Your task to perform on an android device: View the shopping cart on costco. Add "razer blade" to the cart on costco, then select checkout. Image 0: 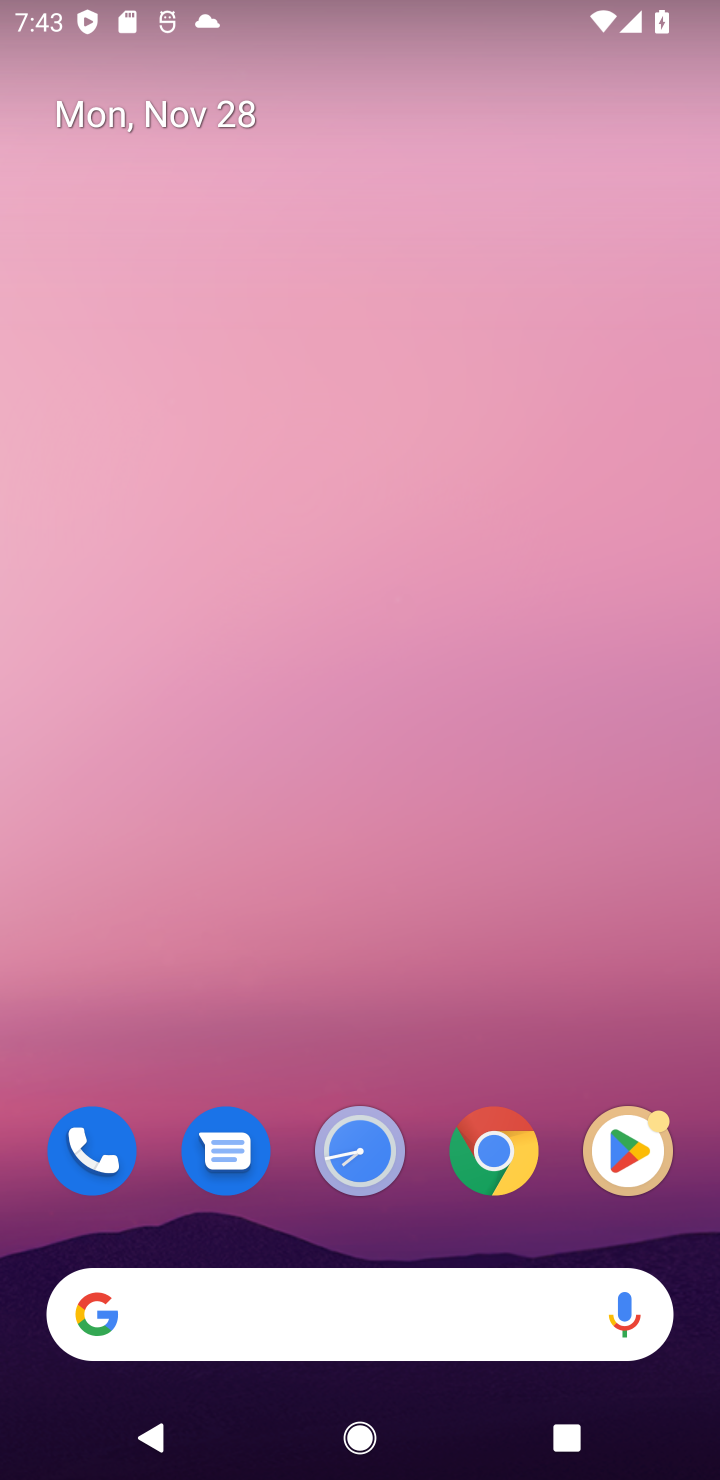
Step 0: click (311, 1328)
Your task to perform on an android device: View the shopping cart on costco. Add "razer blade" to the cart on costco, then select checkout. Image 1: 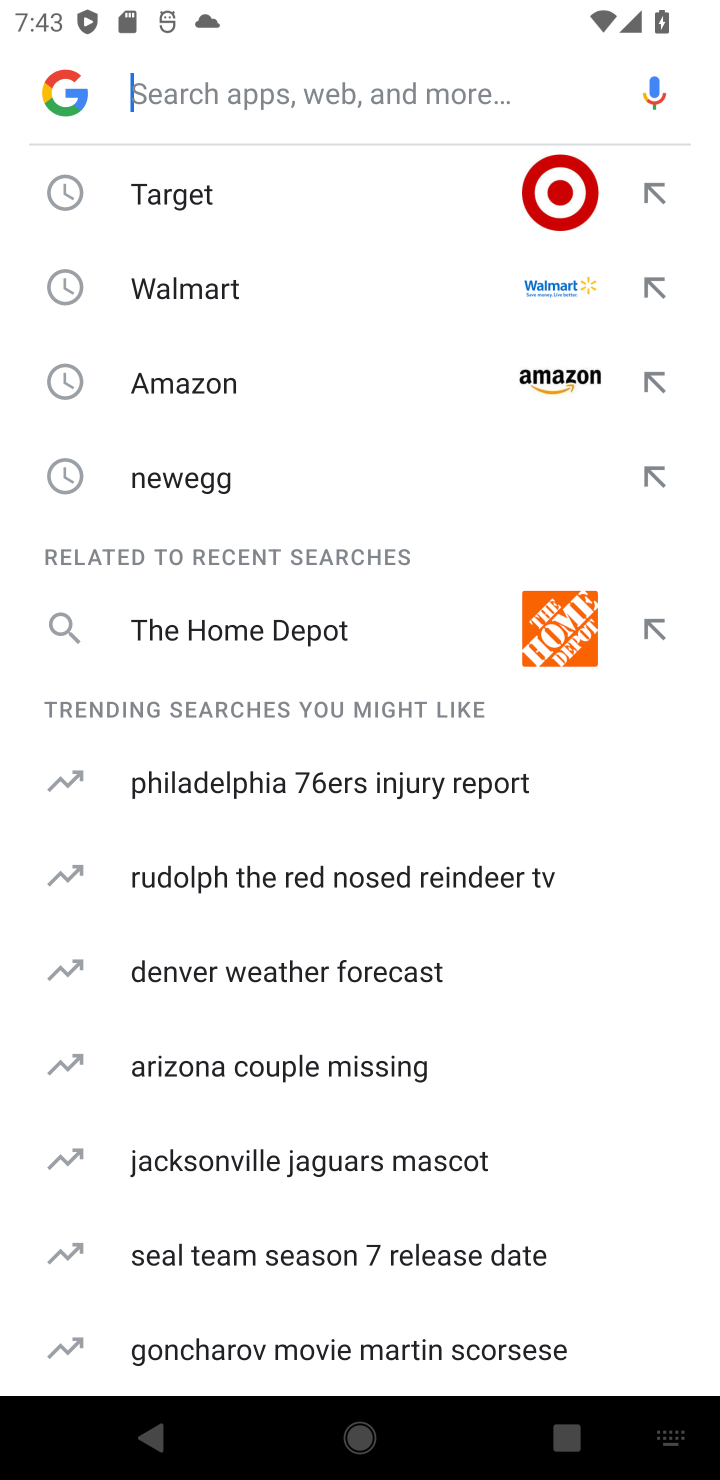
Step 1: type "costco"
Your task to perform on an android device: View the shopping cart on costco. Add "razer blade" to the cart on costco, then select checkout. Image 2: 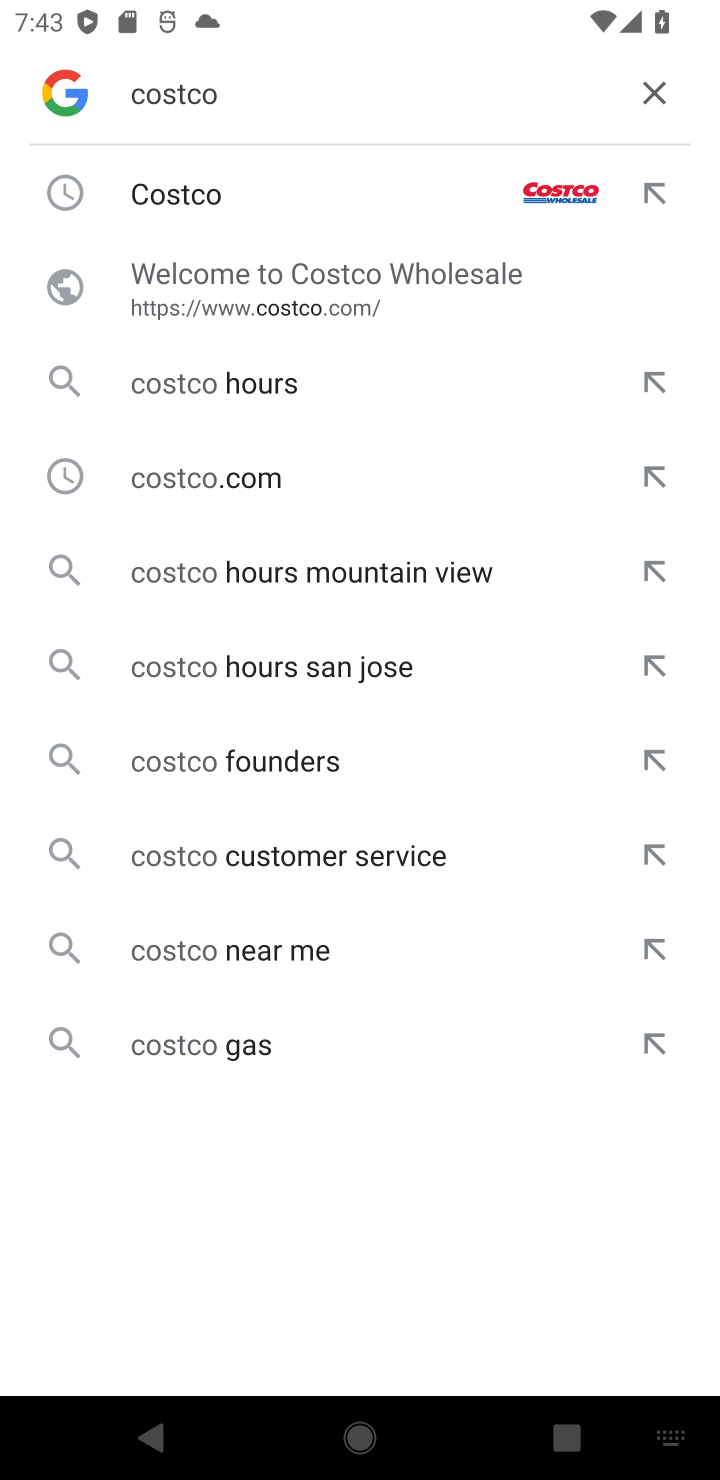
Step 2: click (163, 311)
Your task to perform on an android device: View the shopping cart on costco. Add "razer blade" to the cart on costco, then select checkout. Image 3: 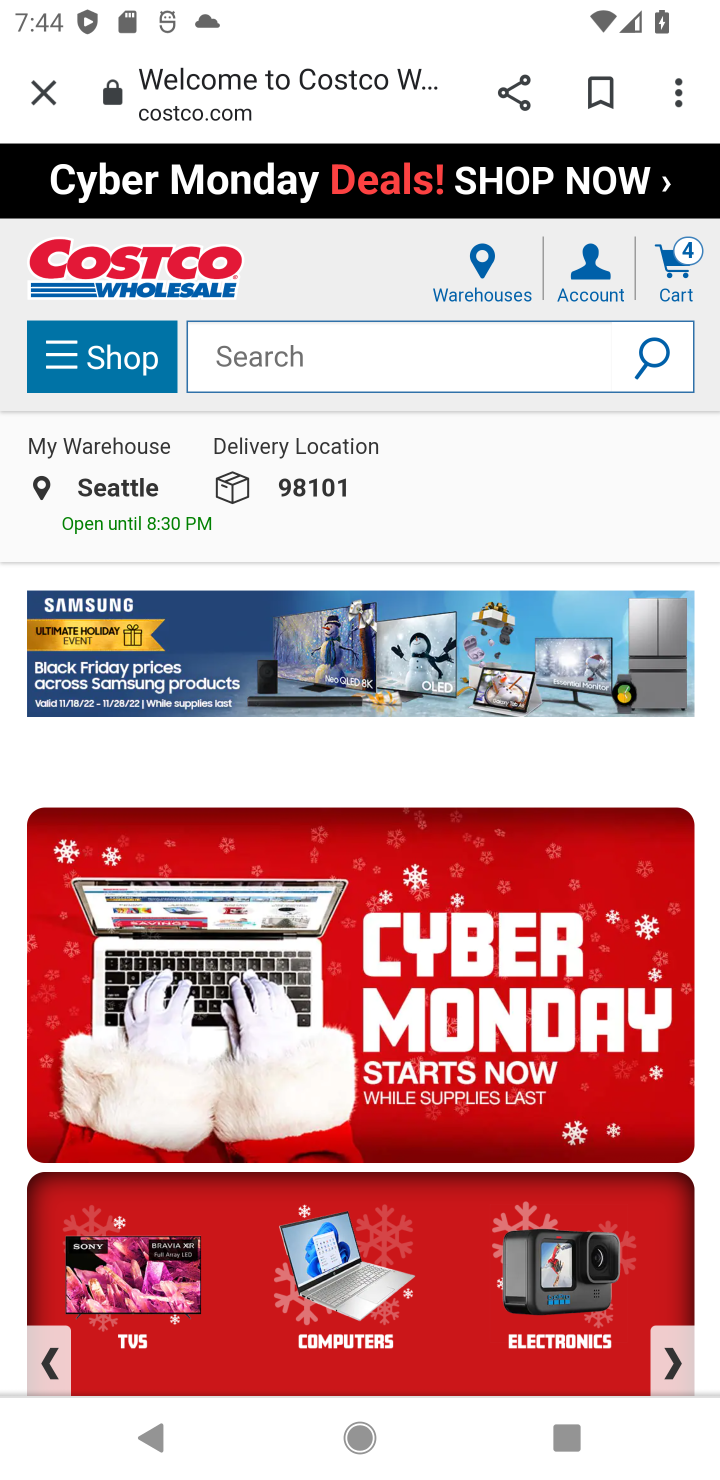
Step 3: click (304, 367)
Your task to perform on an android device: View the shopping cart on costco. Add "razer blade" to the cart on costco, then select checkout. Image 4: 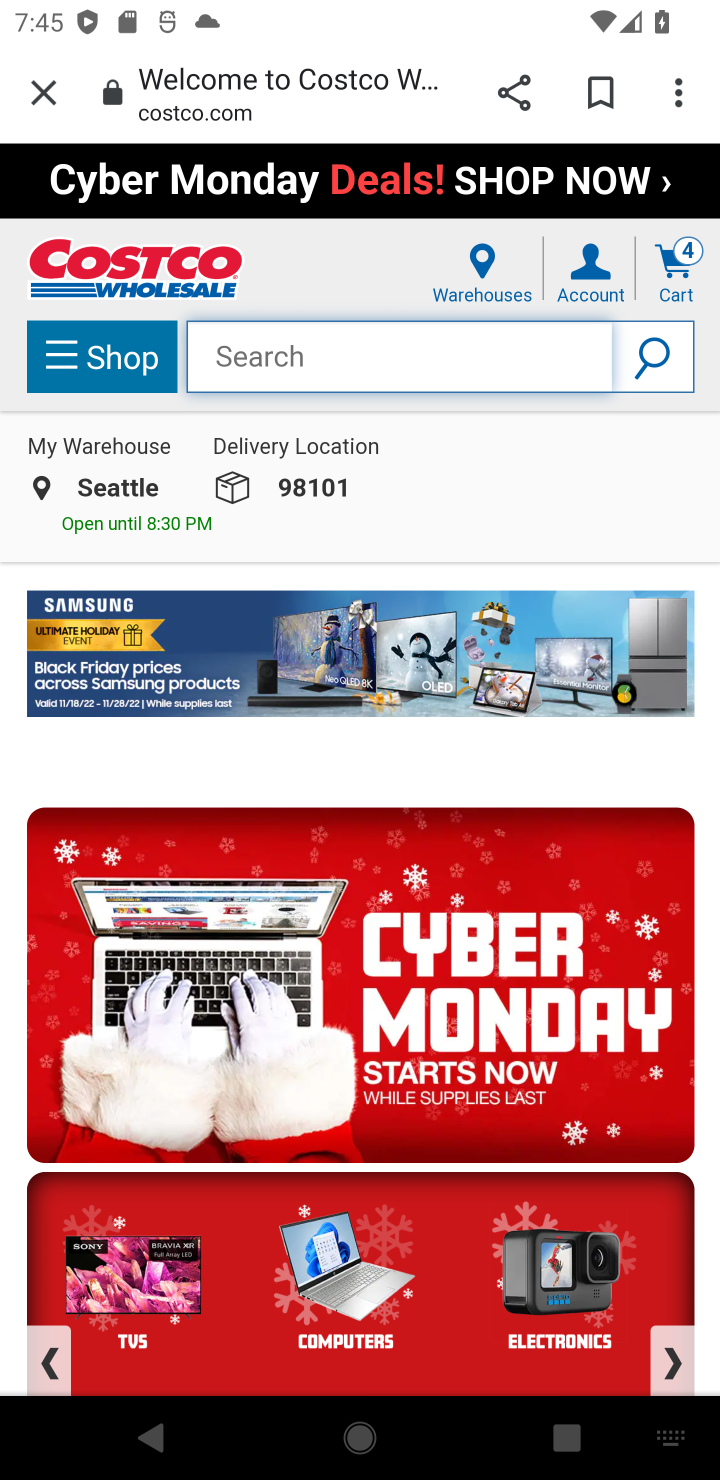
Step 4: type "razer blade"
Your task to perform on an android device: View the shopping cart on costco. Add "razer blade" to the cart on costco, then select checkout. Image 5: 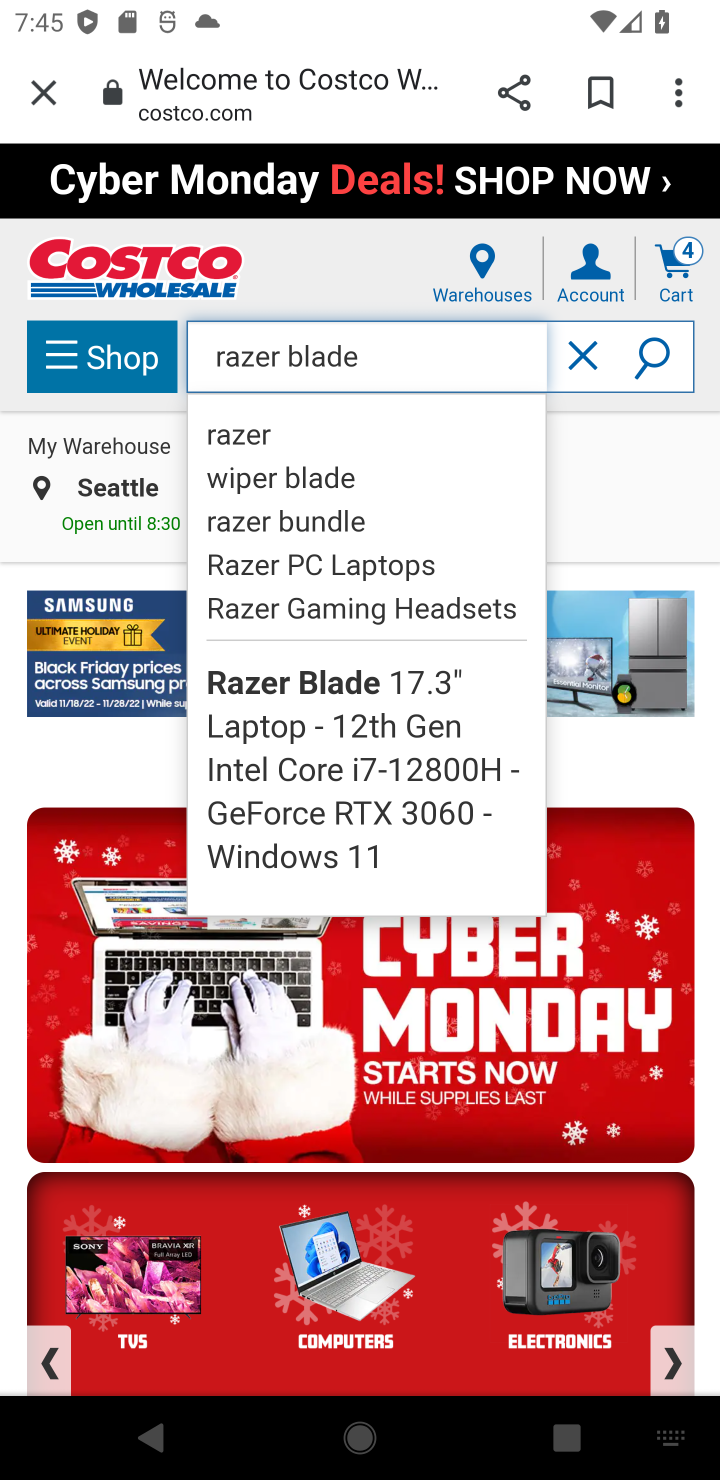
Step 5: click (646, 371)
Your task to perform on an android device: View the shopping cart on costco. Add "razer blade" to the cart on costco, then select checkout. Image 6: 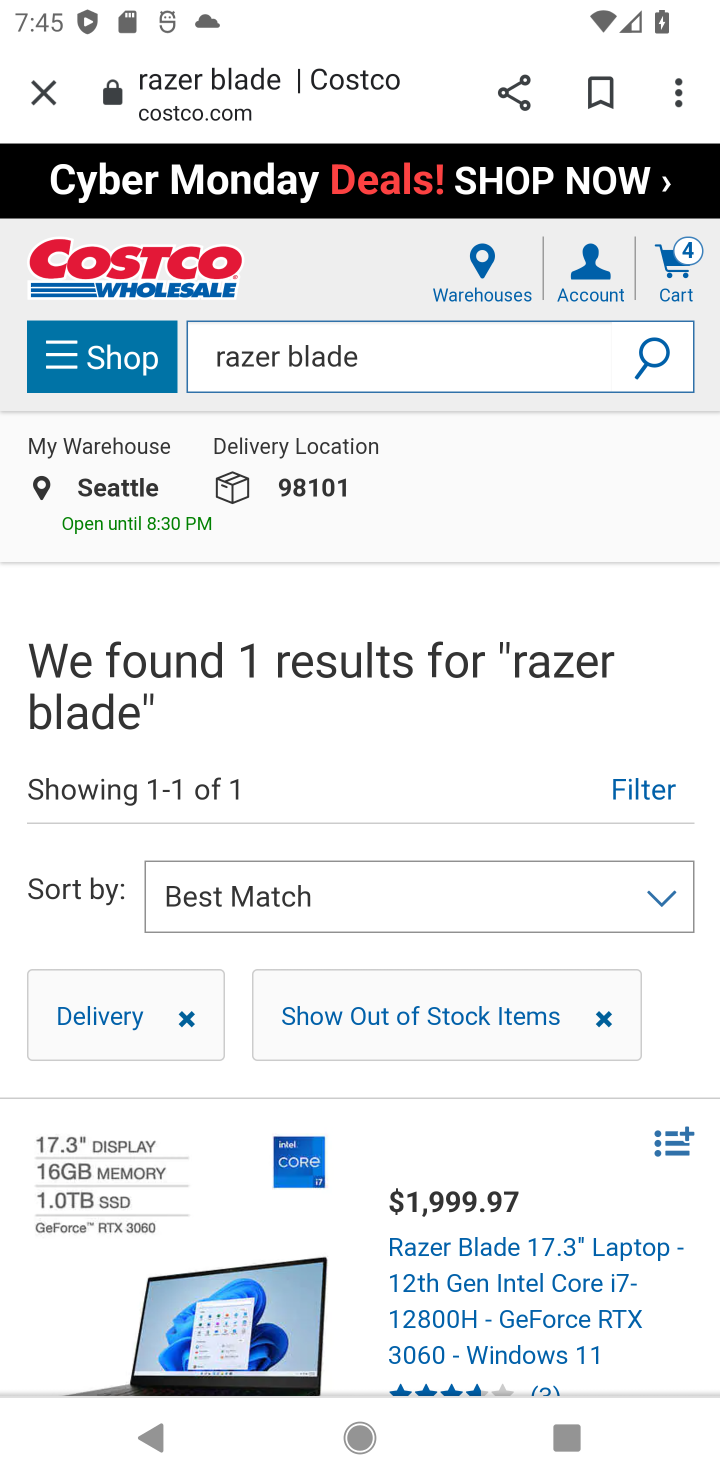
Step 6: task complete